Your task to perform on an android device: open wifi settings Image 0: 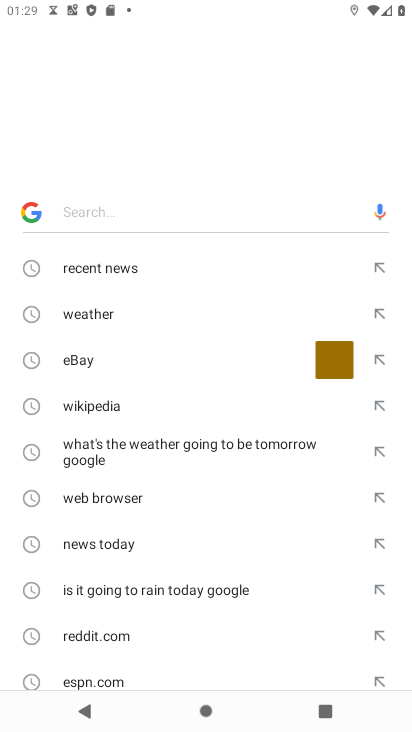
Step 0: press home button
Your task to perform on an android device: open wifi settings Image 1: 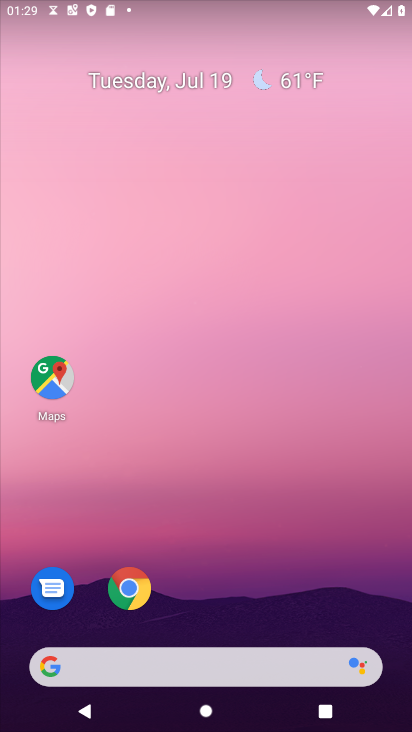
Step 1: drag from (272, 673) to (262, 261)
Your task to perform on an android device: open wifi settings Image 2: 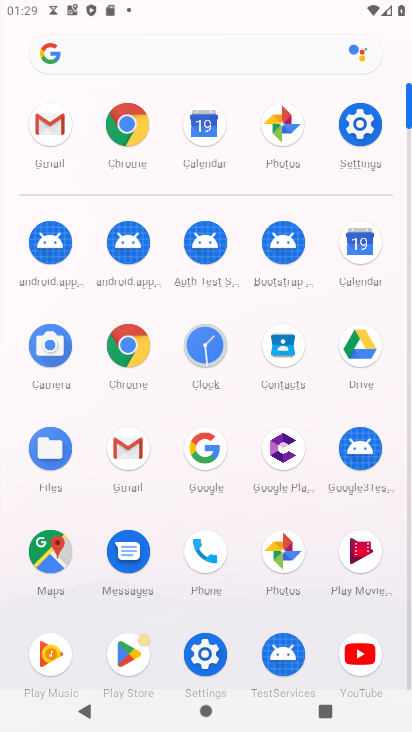
Step 2: click (368, 227)
Your task to perform on an android device: open wifi settings Image 3: 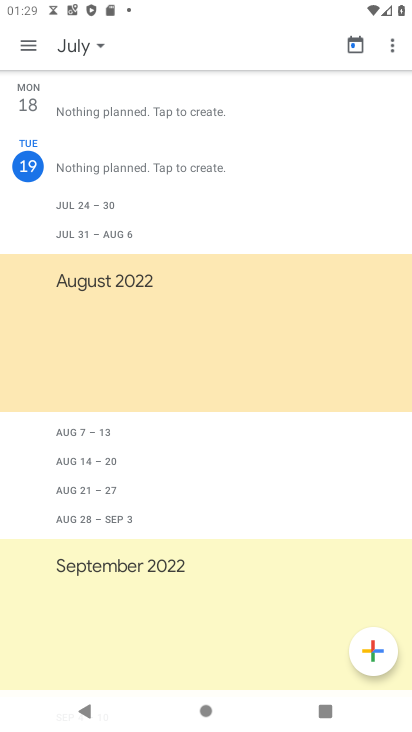
Step 3: press home button
Your task to perform on an android device: open wifi settings Image 4: 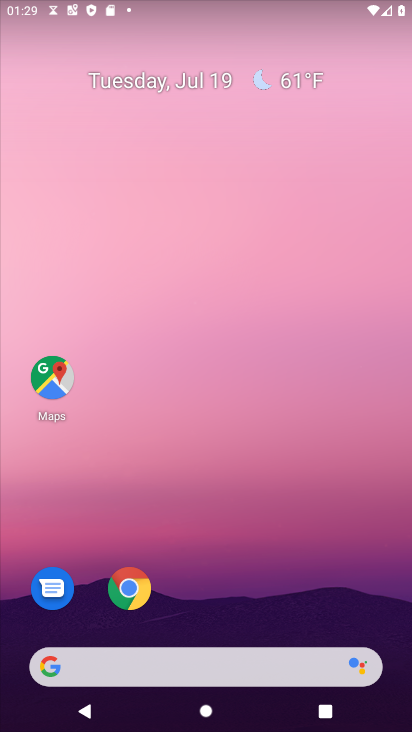
Step 4: click (226, 135)
Your task to perform on an android device: open wifi settings Image 5: 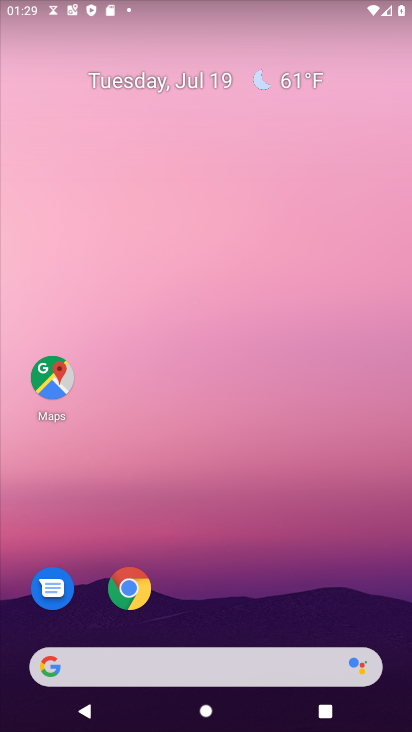
Step 5: drag from (287, 685) to (211, 193)
Your task to perform on an android device: open wifi settings Image 6: 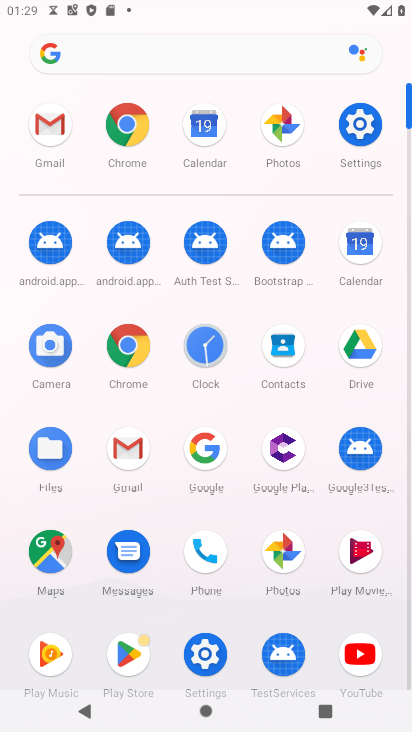
Step 6: click (350, 122)
Your task to perform on an android device: open wifi settings Image 7: 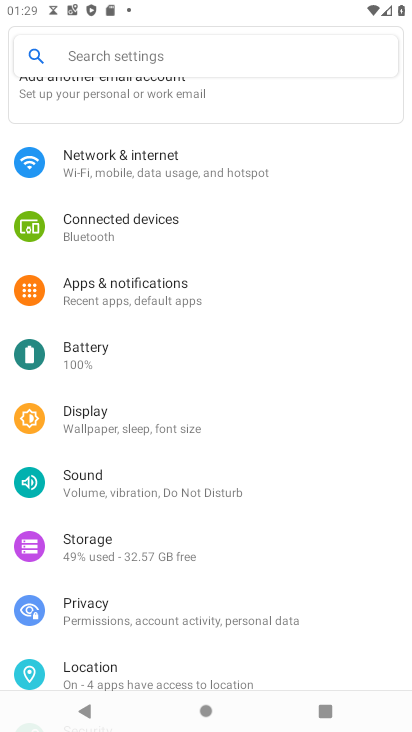
Step 7: click (129, 153)
Your task to perform on an android device: open wifi settings Image 8: 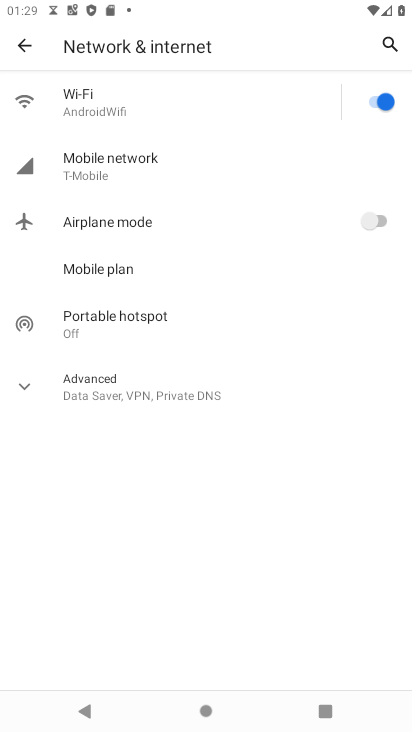
Step 8: click (140, 106)
Your task to perform on an android device: open wifi settings Image 9: 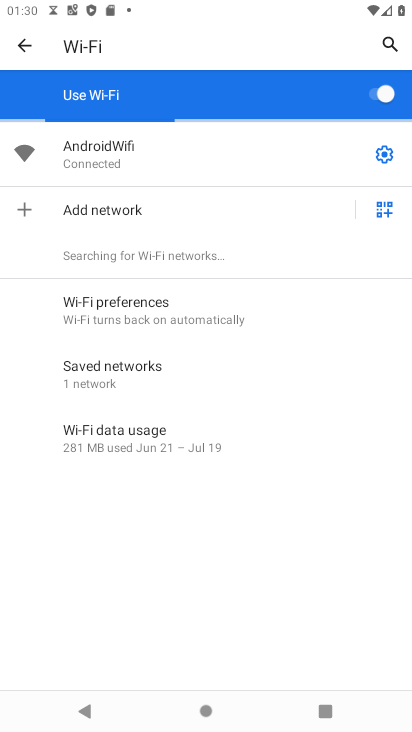
Step 9: task complete